Your task to perform on an android device: Search for vegetarian restaurants on Maps Image 0: 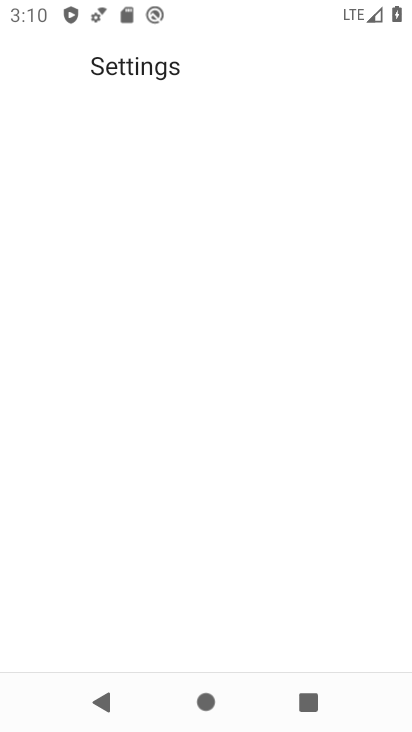
Step 0: drag from (240, 439) to (406, 591)
Your task to perform on an android device: Search for vegetarian restaurants on Maps Image 1: 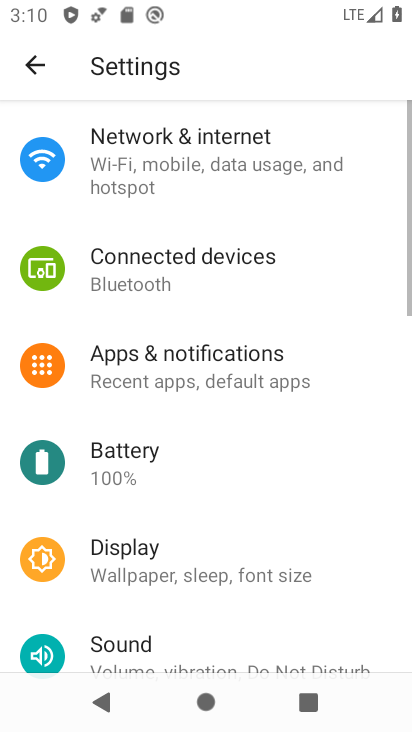
Step 1: press home button
Your task to perform on an android device: Search for vegetarian restaurants on Maps Image 2: 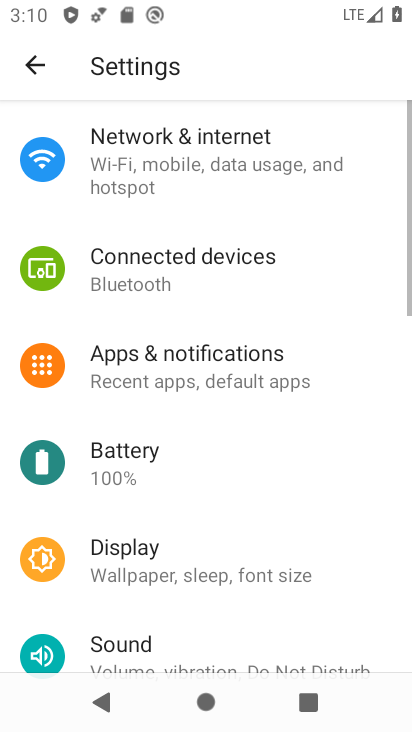
Step 2: click (394, 421)
Your task to perform on an android device: Search for vegetarian restaurants on Maps Image 3: 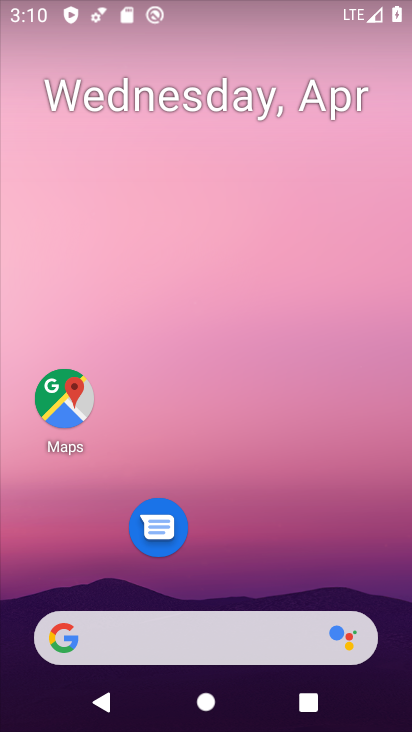
Step 3: click (59, 412)
Your task to perform on an android device: Search for vegetarian restaurants on Maps Image 4: 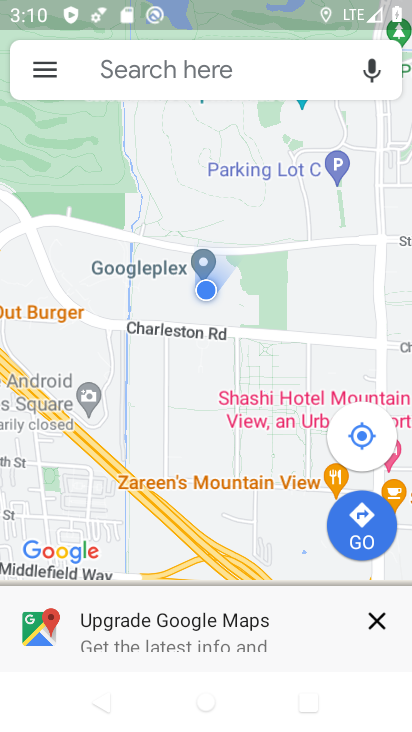
Step 4: click (201, 69)
Your task to perform on an android device: Search for vegetarian restaurants on Maps Image 5: 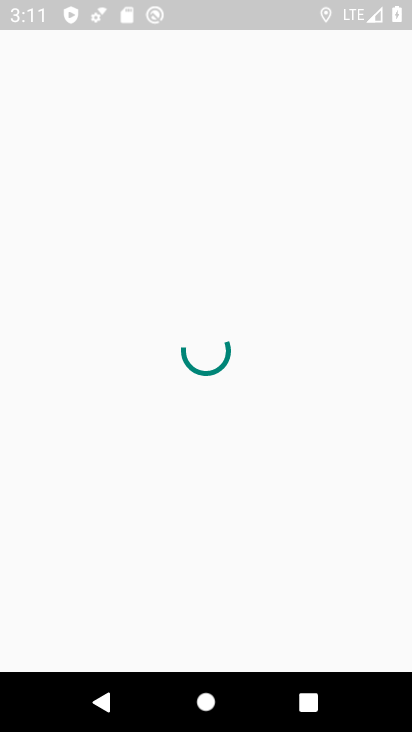
Step 5: click (198, 357)
Your task to perform on an android device: Search for vegetarian restaurants on Maps Image 6: 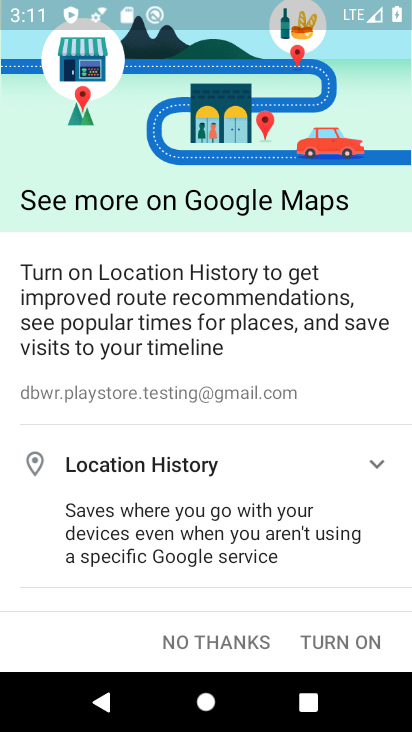
Step 6: click (342, 653)
Your task to perform on an android device: Search for vegetarian restaurants on Maps Image 7: 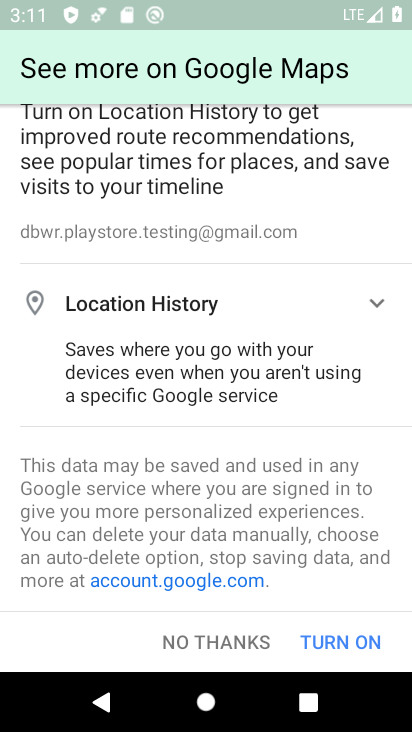
Step 7: click (342, 653)
Your task to perform on an android device: Search for vegetarian restaurants on Maps Image 8: 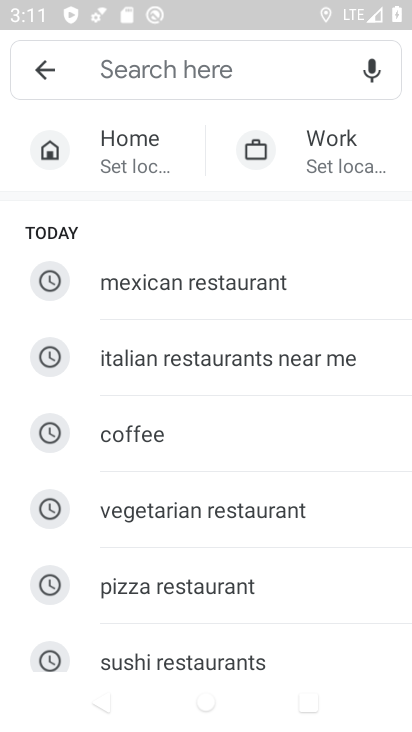
Step 8: click (248, 511)
Your task to perform on an android device: Search for vegetarian restaurants on Maps Image 9: 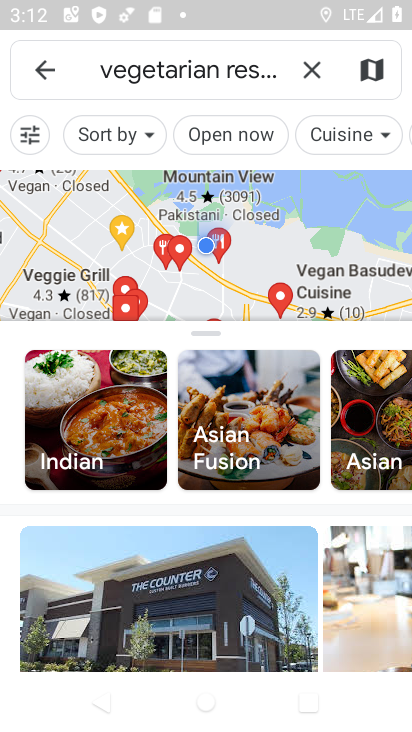
Step 9: task complete